Your task to perform on an android device: Open calendar and show me the second week of next month Image 0: 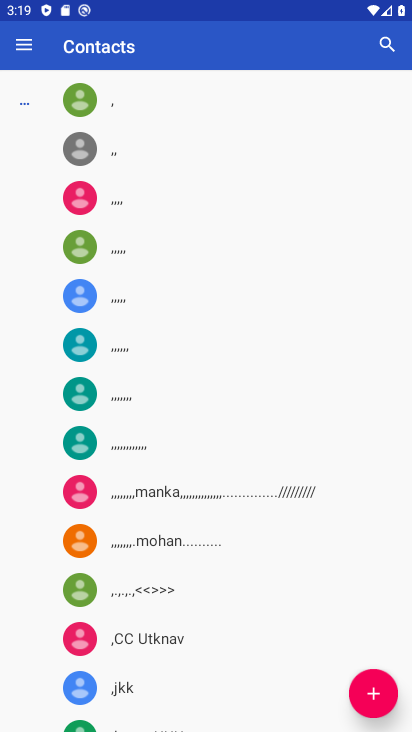
Step 0: press home button
Your task to perform on an android device: Open calendar and show me the second week of next month Image 1: 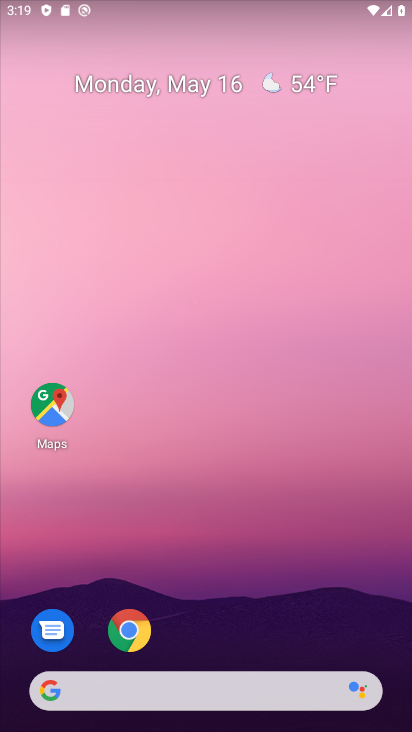
Step 1: drag from (198, 639) to (216, 47)
Your task to perform on an android device: Open calendar and show me the second week of next month Image 2: 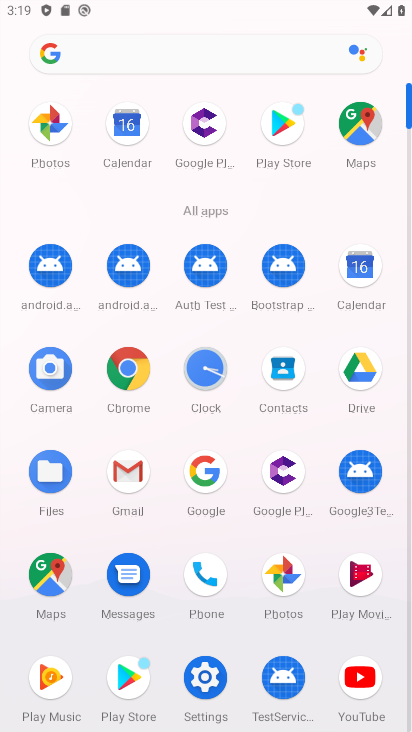
Step 2: click (350, 266)
Your task to perform on an android device: Open calendar and show me the second week of next month Image 3: 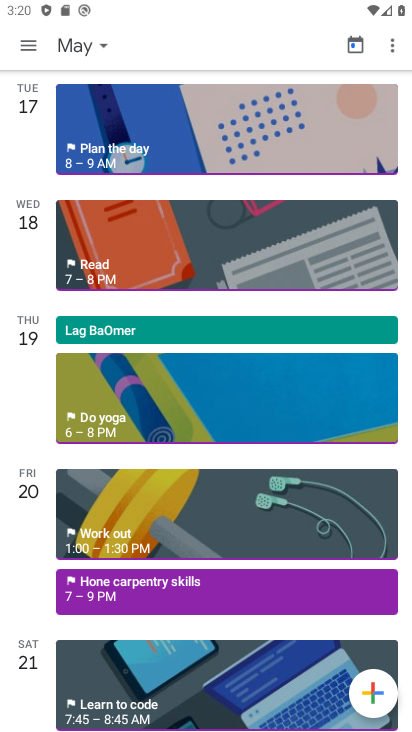
Step 3: click (78, 43)
Your task to perform on an android device: Open calendar and show me the second week of next month Image 4: 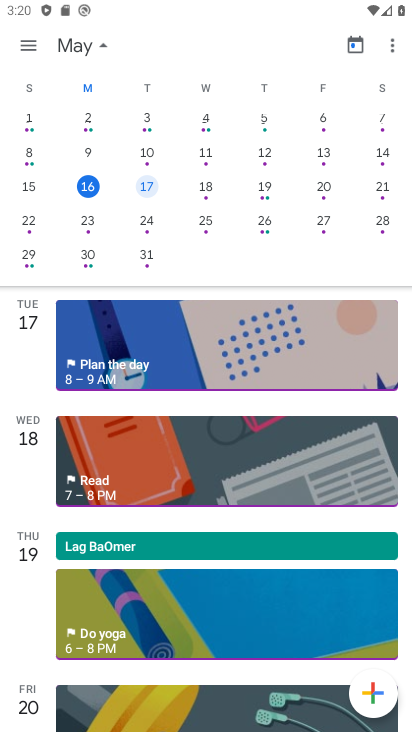
Step 4: drag from (403, 182) to (3, 170)
Your task to perform on an android device: Open calendar and show me the second week of next month Image 5: 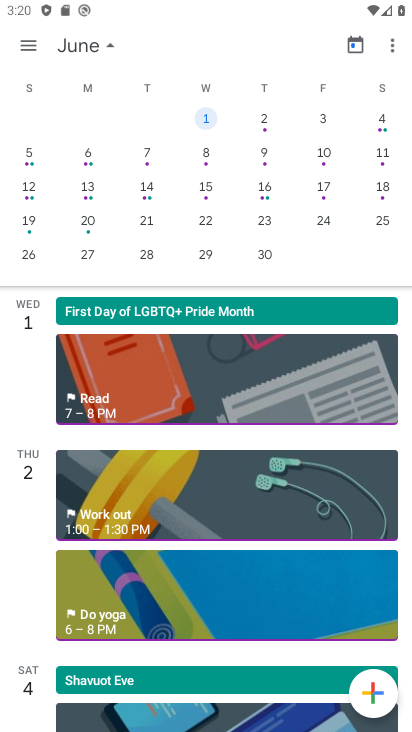
Step 5: click (209, 159)
Your task to perform on an android device: Open calendar and show me the second week of next month Image 6: 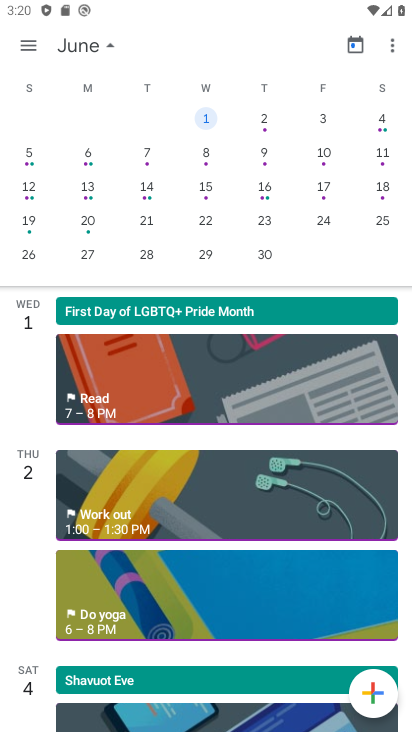
Step 6: click (207, 153)
Your task to perform on an android device: Open calendar and show me the second week of next month Image 7: 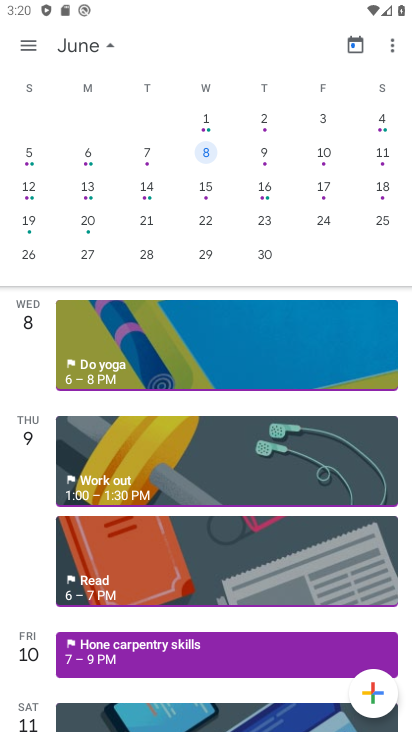
Step 7: click (39, 35)
Your task to perform on an android device: Open calendar and show me the second week of next month Image 8: 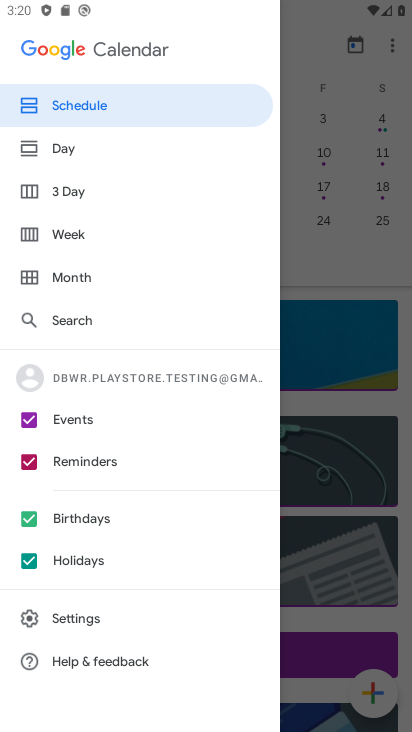
Step 8: click (94, 228)
Your task to perform on an android device: Open calendar and show me the second week of next month Image 9: 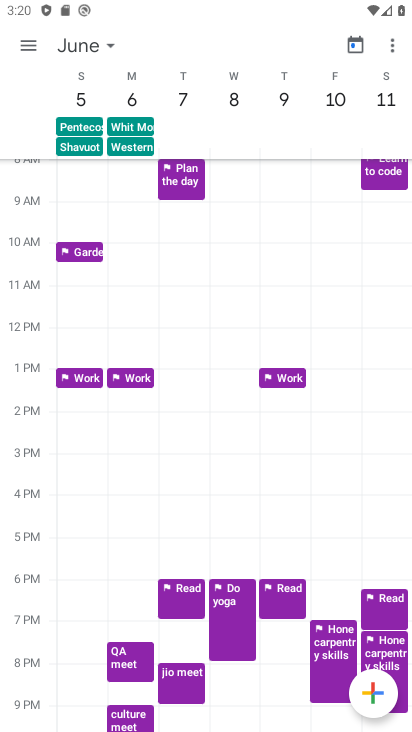
Step 9: task complete